Your task to perform on an android device: Open wifi settings Image 0: 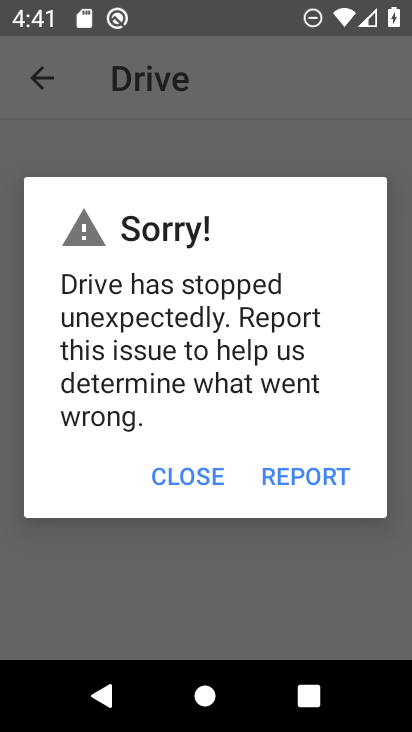
Step 0: press home button
Your task to perform on an android device: Open wifi settings Image 1: 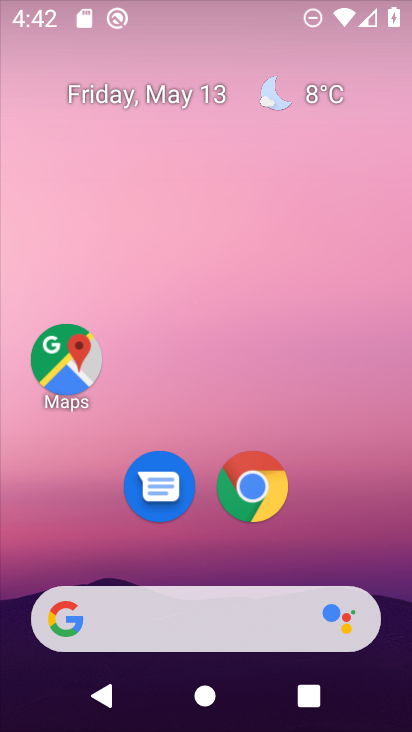
Step 1: drag from (342, 583) to (389, 97)
Your task to perform on an android device: Open wifi settings Image 2: 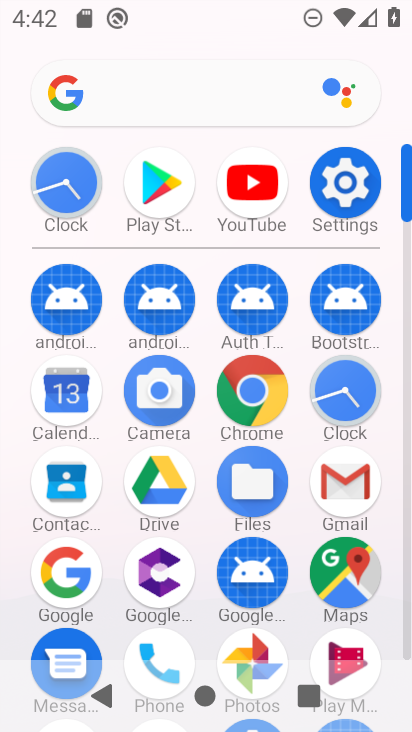
Step 2: click (345, 187)
Your task to perform on an android device: Open wifi settings Image 3: 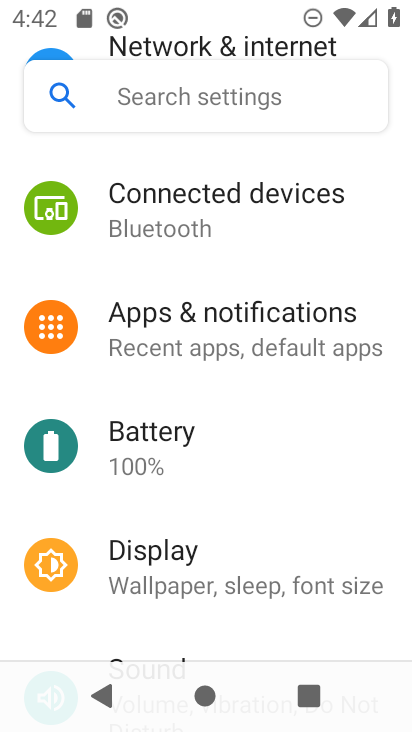
Step 3: drag from (206, 230) to (196, 362)
Your task to perform on an android device: Open wifi settings Image 4: 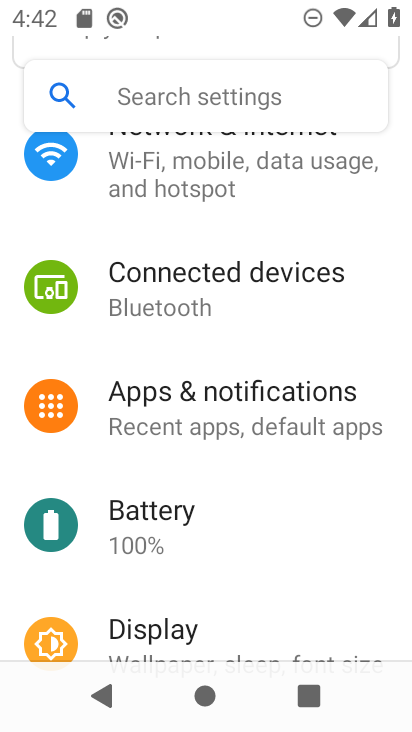
Step 4: click (221, 201)
Your task to perform on an android device: Open wifi settings Image 5: 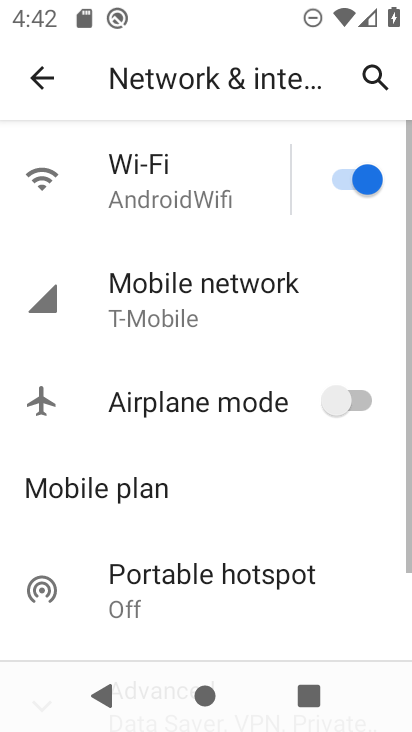
Step 5: click (217, 181)
Your task to perform on an android device: Open wifi settings Image 6: 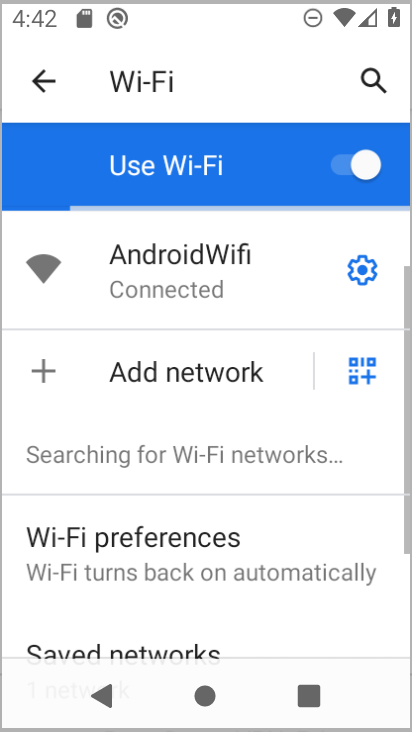
Step 6: task complete